Your task to perform on an android device: Open the web browser Image 0: 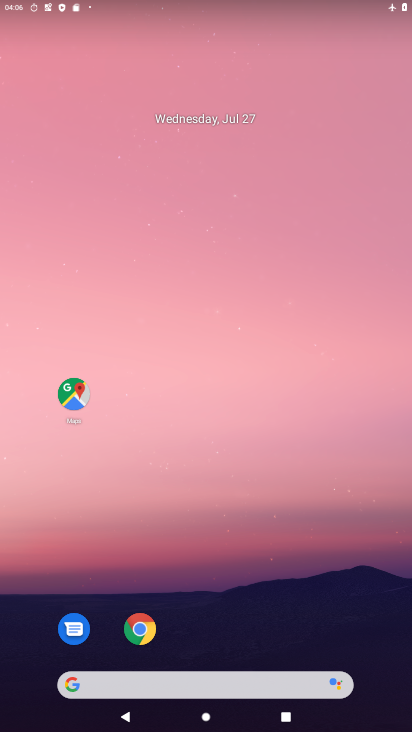
Step 0: drag from (267, 345) to (280, 86)
Your task to perform on an android device: Open the web browser Image 1: 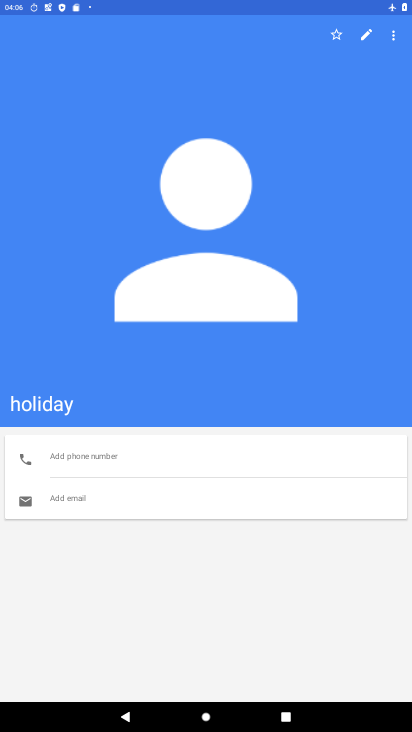
Step 1: press home button
Your task to perform on an android device: Open the web browser Image 2: 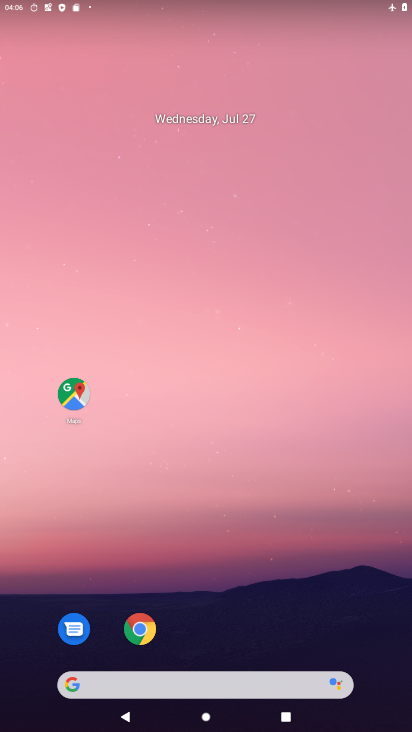
Step 2: drag from (229, 590) to (217, 71)
Your task to perform on an android device: Open the web browser Image 3: 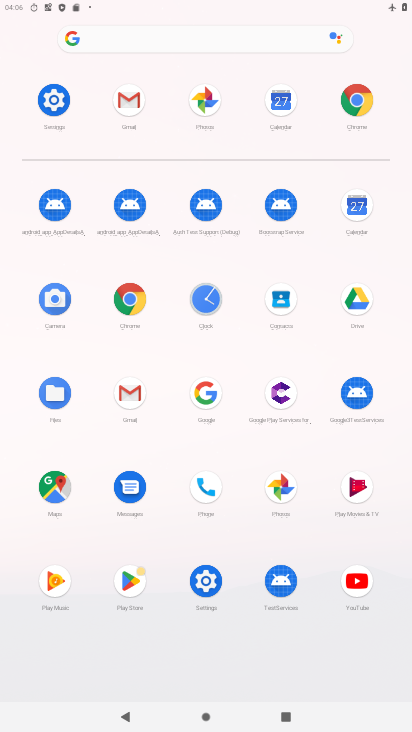
Step 3: click (360, 100)
Your task to perform on an android device: Open the web browser Image 4: 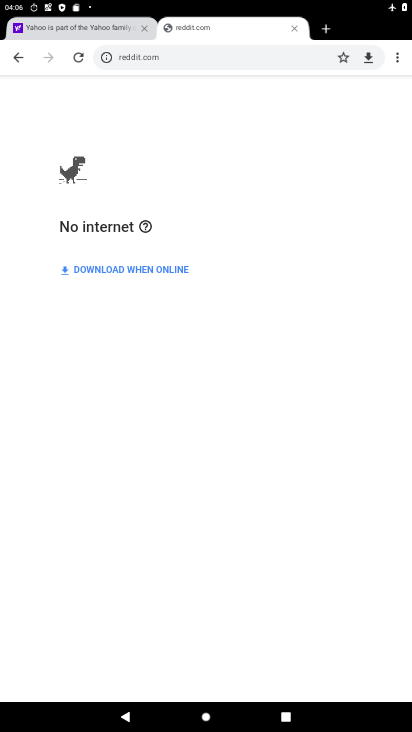
Step 4: task complete